Your task to perform on an android device: turn on improve location accuracy Image 0: 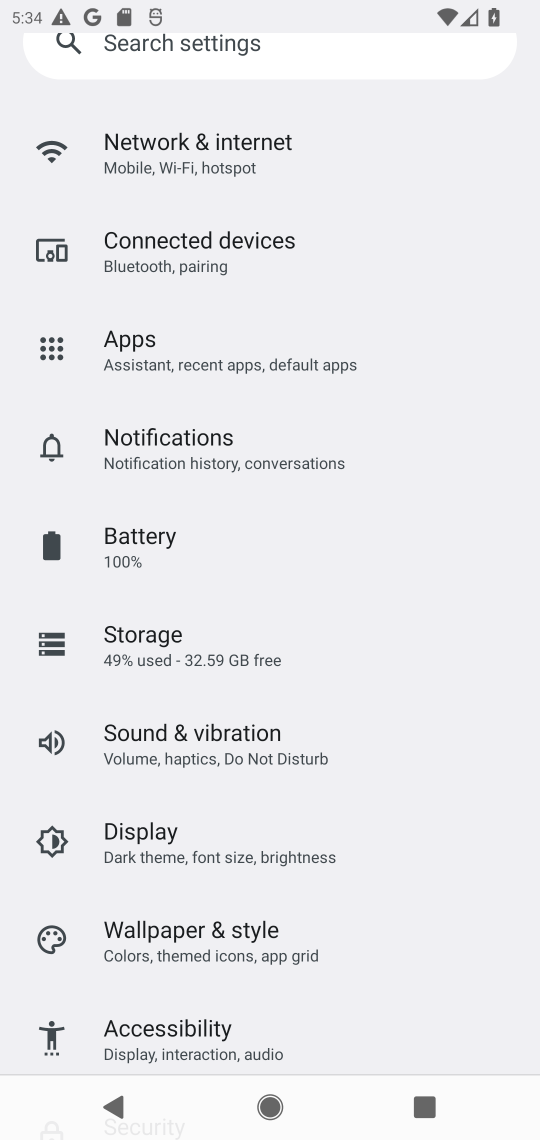
Step 0: task complete